Your task to perform on an android device: Go to Maps Image 0: 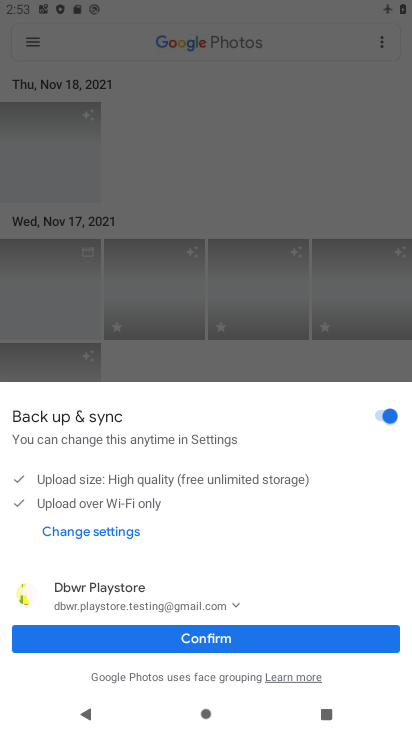
Step 0: press home button
Your task to perform on an android device: Go to Maps Image 1: 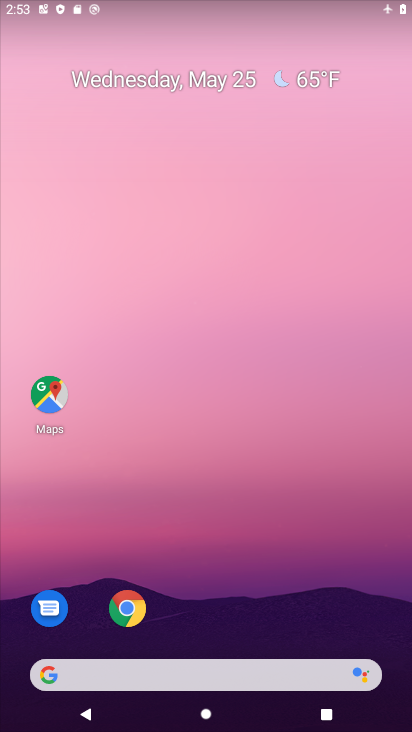
Step 1: click (49, 394)
Your task to perform on an android device: Go to Maps Image 2: 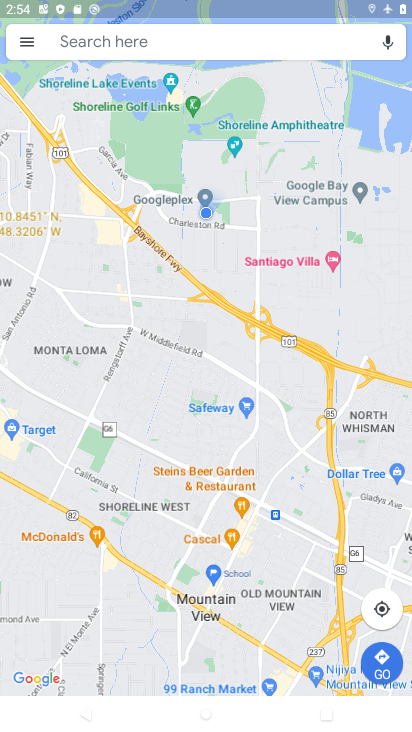
Step 2: task complete